Your task to perform on an android device: Set the phone to "Do not disturb". Image 0: 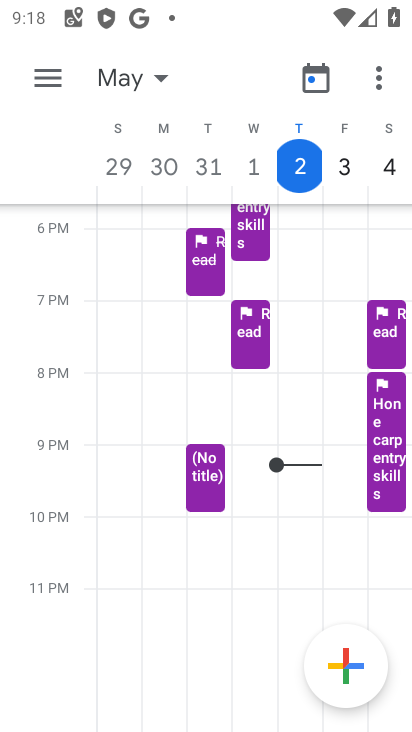
Step 0: press home button
Your task to perform on an android device: Set the phone to "Do not disturb". Image 1: 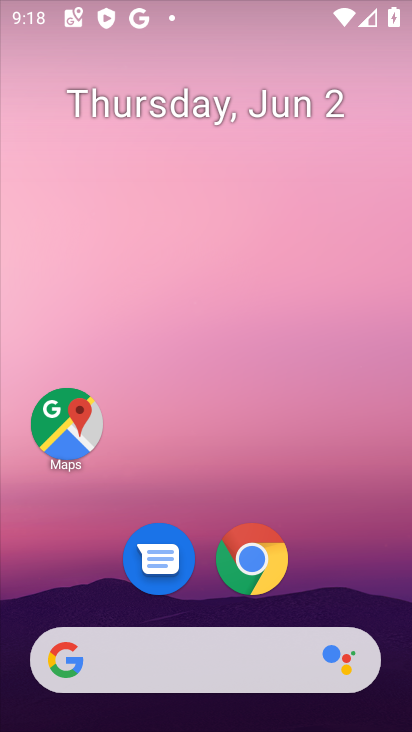
Step 1: drag from (201, 49) to (147, 515)
Your task to perform on an android device: Set the phone to "Do not disturb". Image 2: 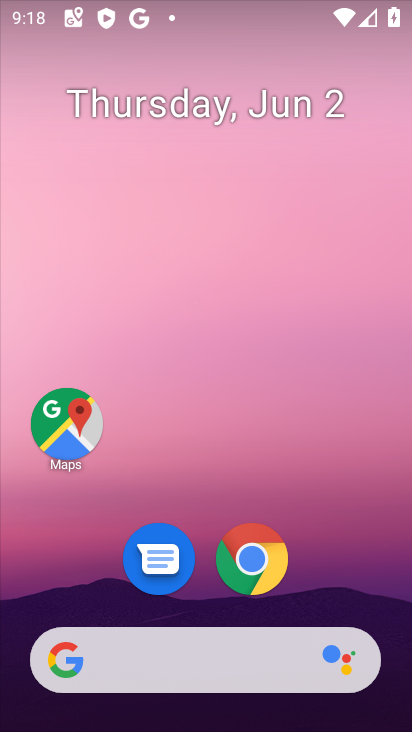
Step 2: drag from (195, 8) to (174, 575)
Your task to perform on an android device: Set the phone to "Do not disturb". Image 3: 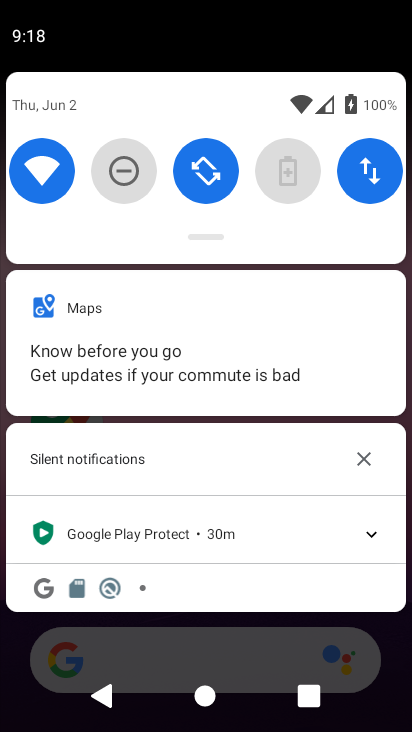
Step 3: click (100, 170)
Your task to perform on an android device: Set the phone to "Do not disturb". Image 4: 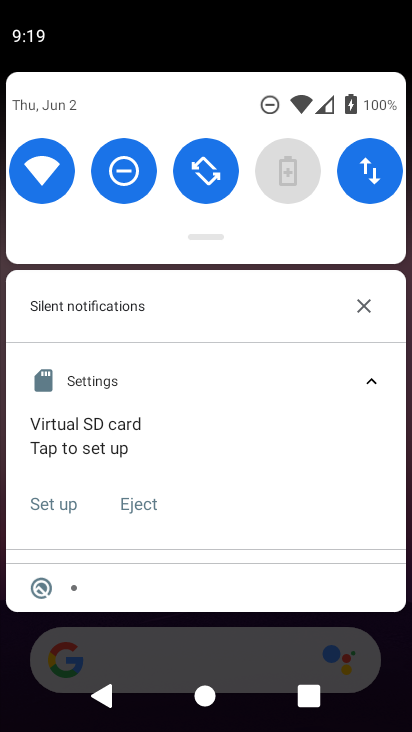
Step 4: task complete